Your task to perform on an android device: Add razer blade to the cart on target.com, then select checkout. Image 0: 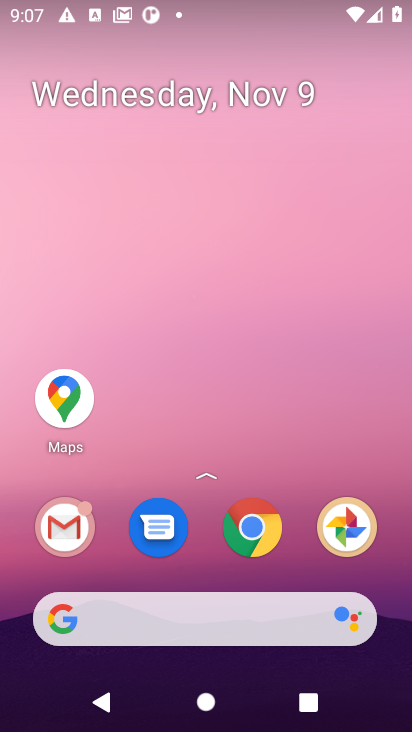
Step 0: click (257, 533)
Your task to perform on an android device: Add razer blade to the cart on target.com, then select checkout. Image 1: 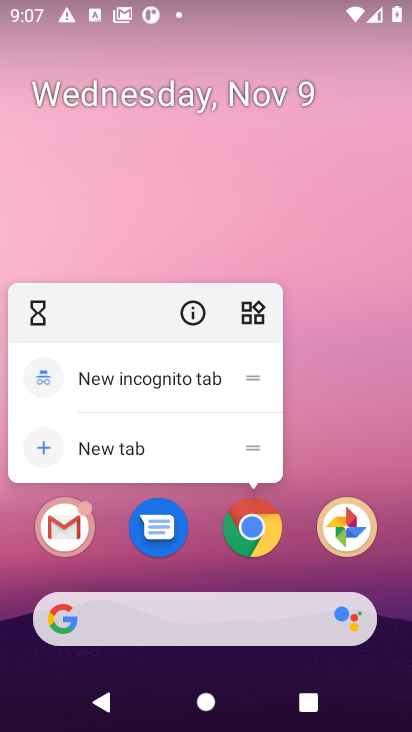
Step 1: click (255, 530)
Your task to perform on an android device: Add razer blade to the cart on target.com, then select checkout. Image 2: 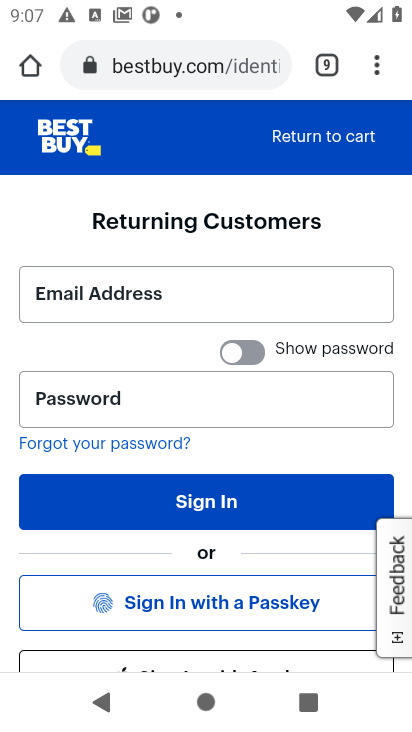
Step 2: click (160, 60)
Your task to perform on an android device: Add razer blade to the cart on target.com, then select checkout. Image 3: 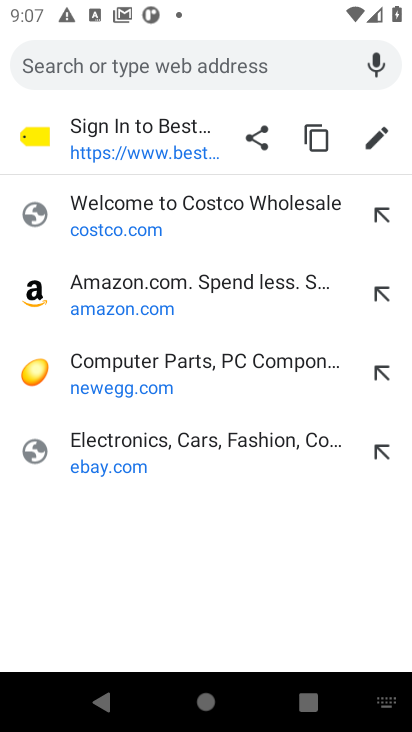
Step 3: type "target.com"
Your task to perform on an android device: Add razer blade to the cart on target.com, then select checkout. Image 4: 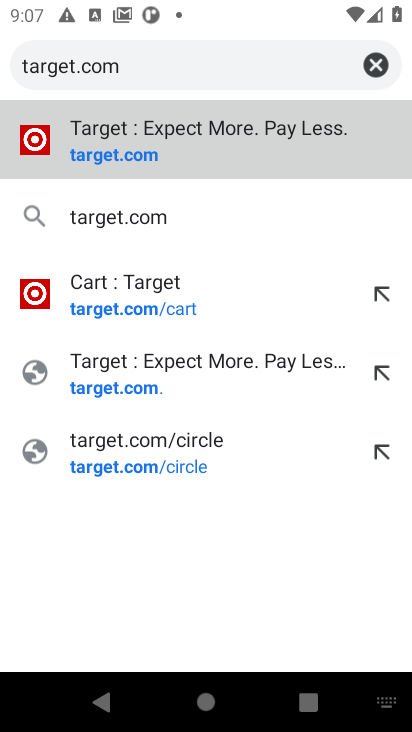
Step 4: click (137, 158)
Your task to perform on an android device: Add razer blade to the cart on target.com, then select checkout. Image 5: 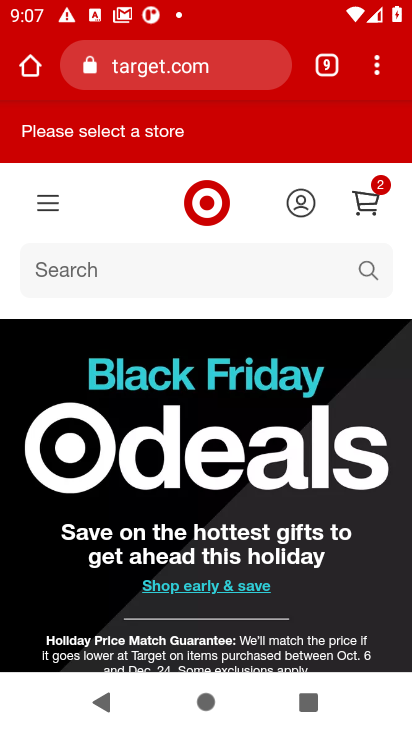
Step 5: click (374, 276)
Your task to perform on an android device: Add razer blade to the cart on target.com, then select checkout. Image 6: 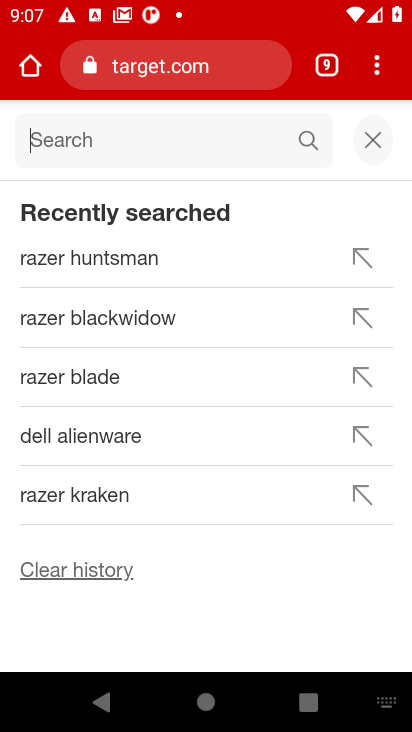
Step 6: type "razer blade "
Your task to perform on an android device: Add razer blade to the cart on target.com, then select checkout. Image 7: 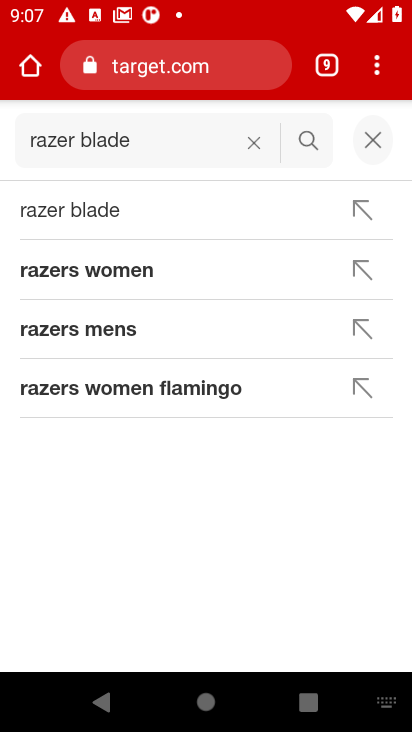
Step 7: click (66, 204)
Your task to perform on an android device: Add razer blade to the cart on target.com, then select checkout. Image 8: 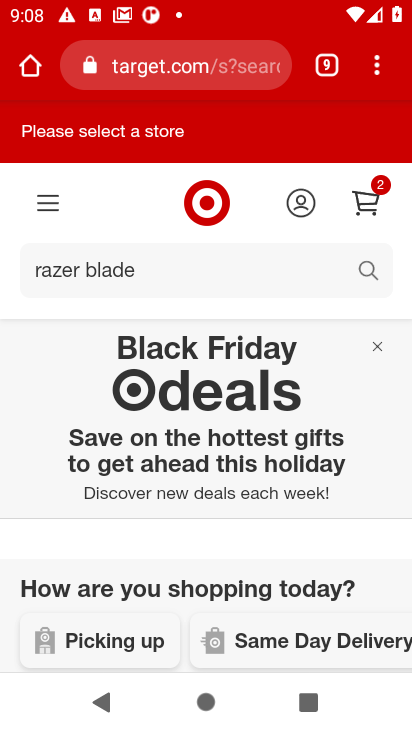
Step 8: task complete